Your task to perform on an android device: Clear all items from cart on newegg.com. Add razer huntsman to the cart on newegg.com Image 0: 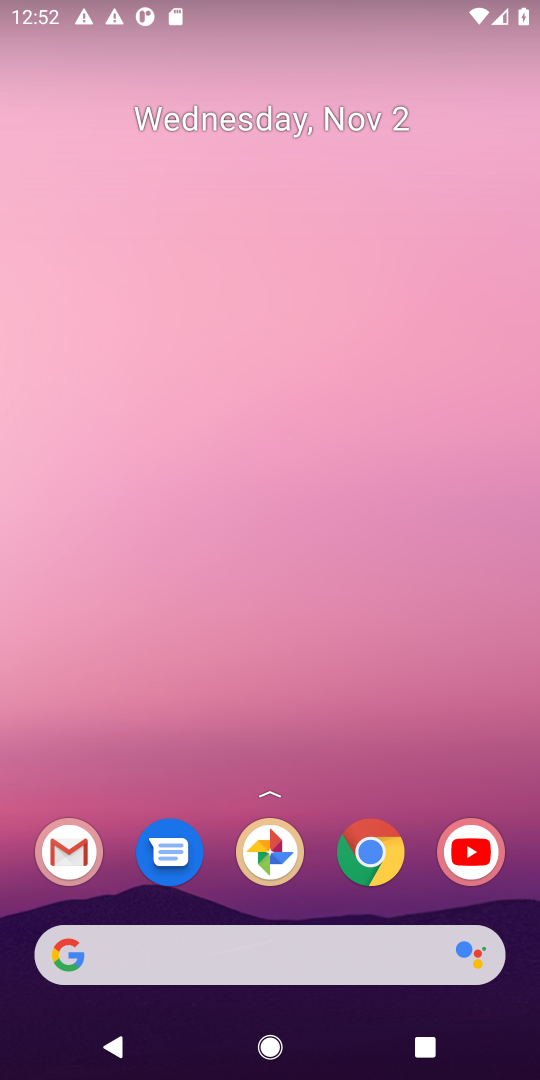
Step 0: press home button
Your task to perform on an android device: Clear all items from cart on newegg.com. Add razer huntsman to the cart on newegg.com Image 1: 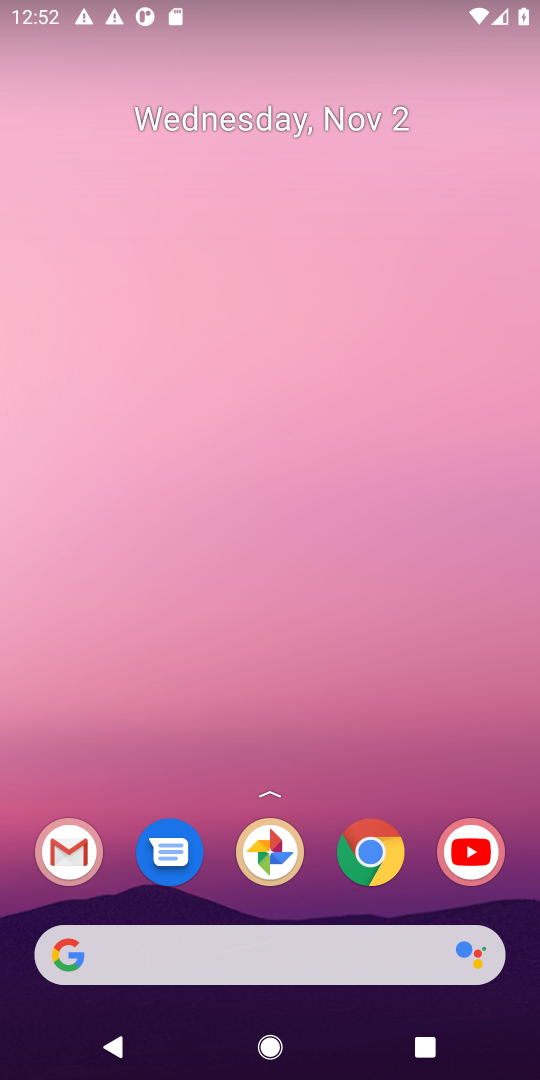
Step 1: click (73, 957)
Your task to perform on an android device: Clear all items from cart on newegg.com. Add razer huntsman to the cart on newegg.com Image 2: 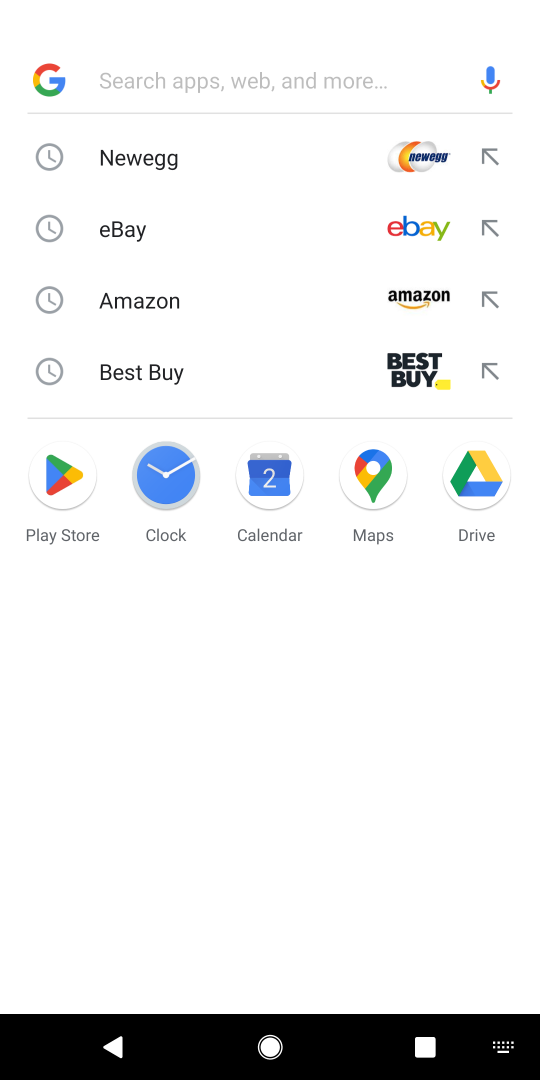
Step 2: click (172, 156)
Your task to perform on an android device: Clear all items from cart on newegg.com. Add razer huntsman to the cart on newegg.com Image 3: 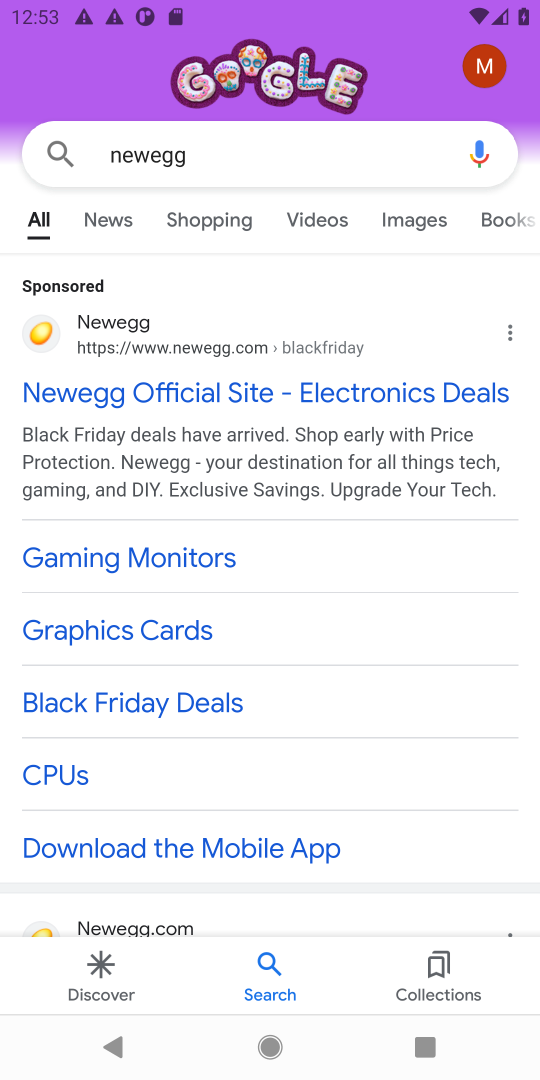
Step 3: drag from (403, 837) to (435, 197)
Your task to perform on an android device: Clear all items from cart on newegg.com. Add razer huntsman to the cart on newegg.com Image 4: 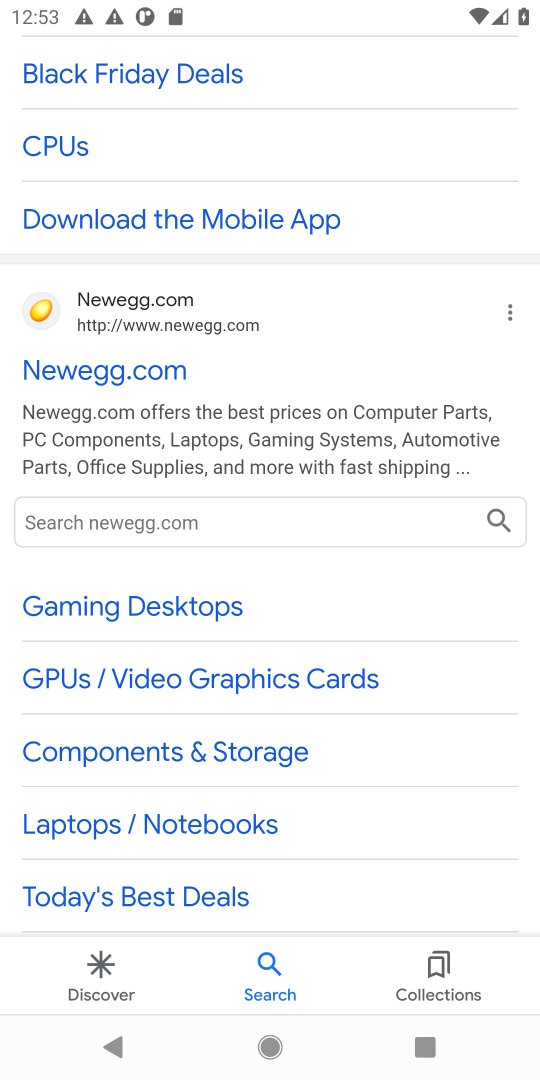
Step 4: click (67, 367)
Your task to perform on an android device: Clear all items from cart on newegg.com. Add razer huntsman to the cart on newegg.com Image 5: 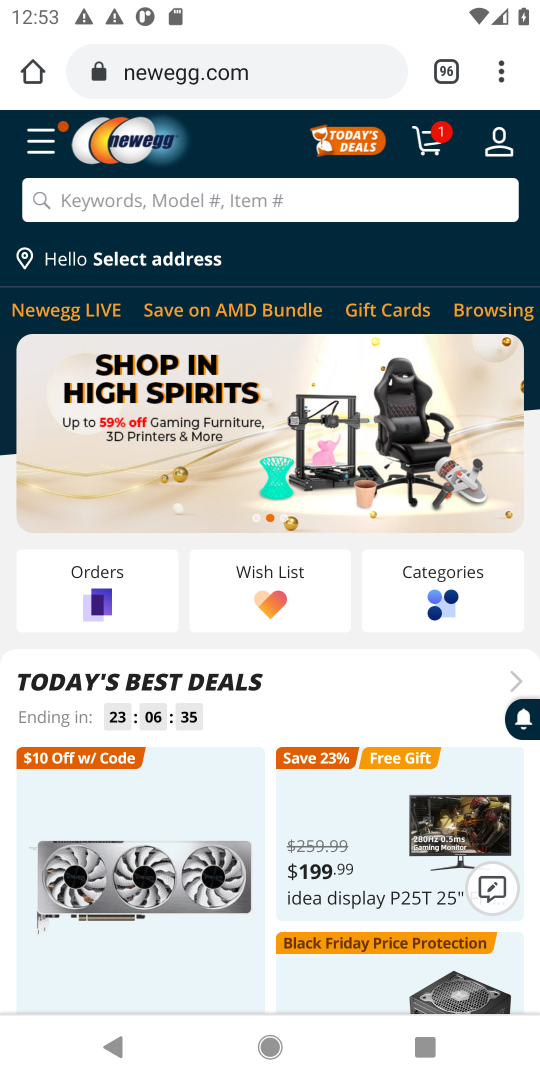
Step 5: click (153, 197)
Your task to perform on an android device: Clear all items from cart on newegg.com. Add razer huntsman to the cart on newegg.com Image 6: 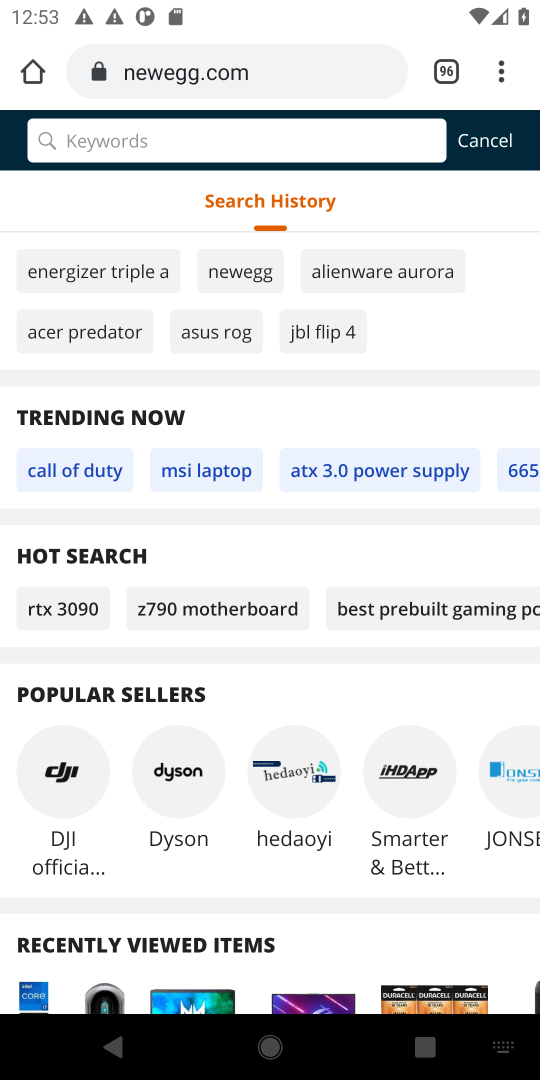
Step 6: type "razer huntsman"
Your task to perform on an android device: Clear all items from cart on newegg.com. Add razer huntsman to the cart on newegg.com Image 7: 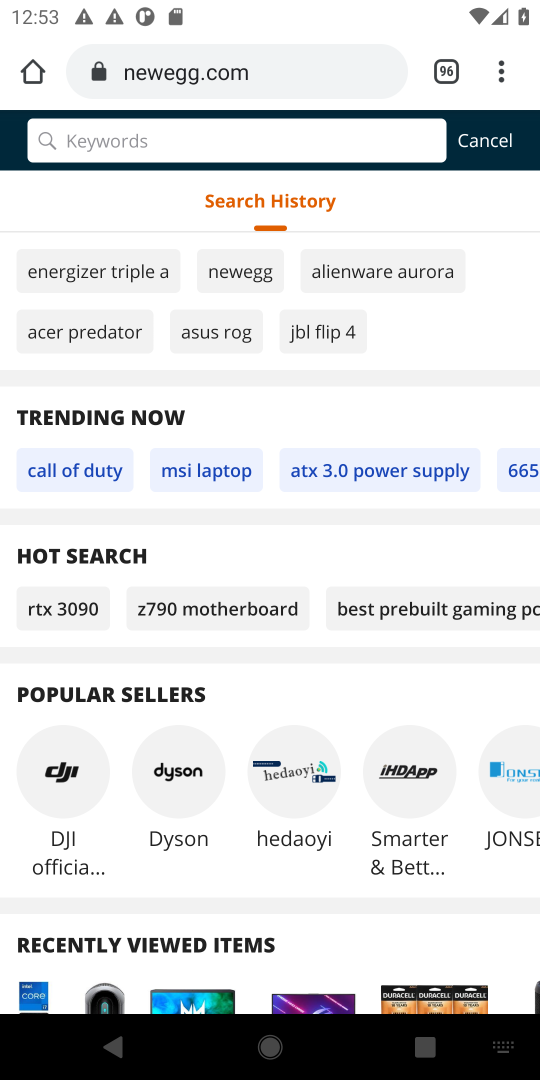
Step 7: click (169, 136)
Your task to perform on an android device: Clear all items from cart on newegg.com. Add razer huntsman to the cart on newegg.com Image 8: 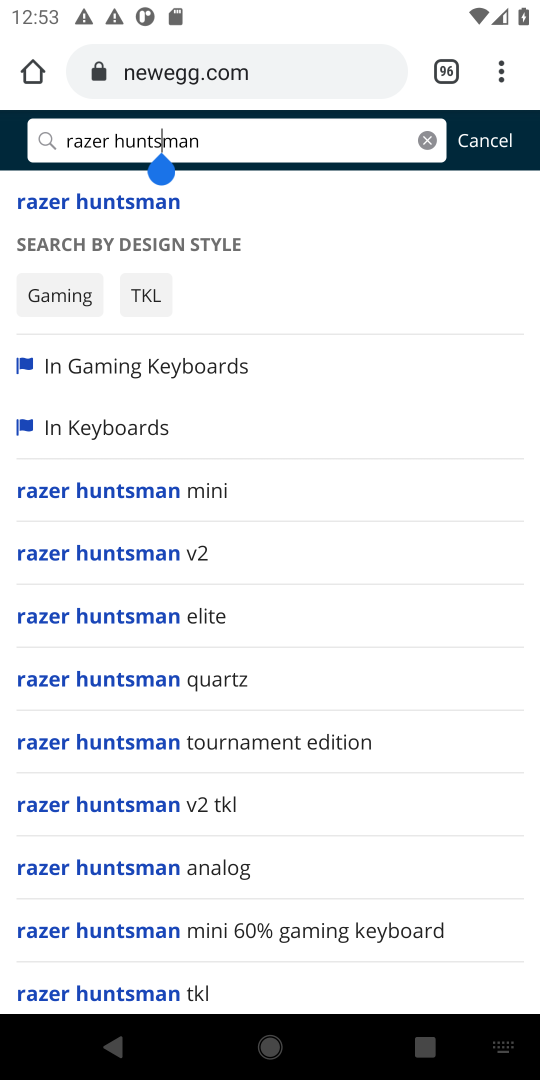
Step 8: press enter
Your task to perform on an android device: Clear all items from cart on newegg.com. Add razer huntsman to the cart on newegg.com Image 9: 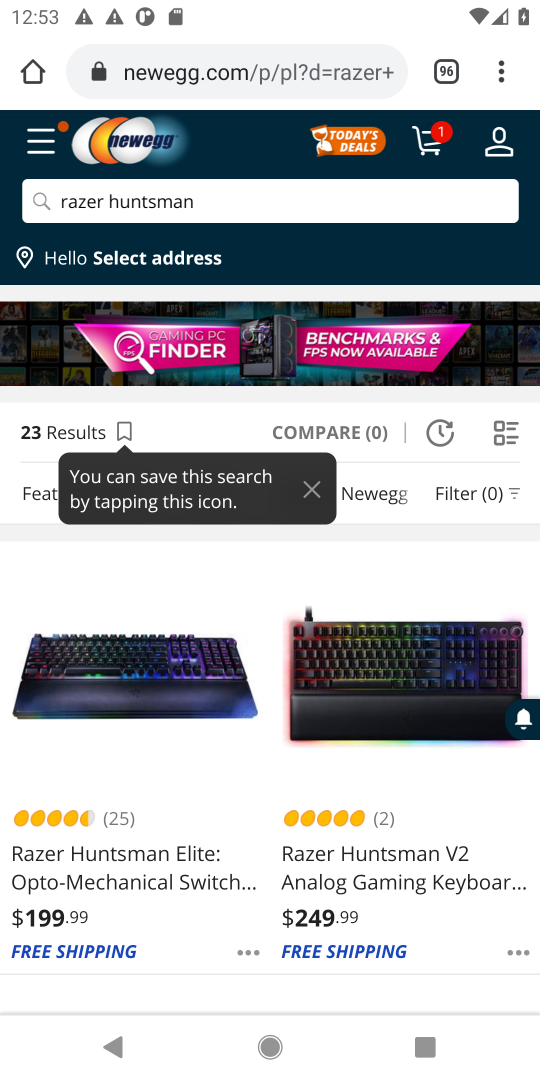
Step 9: drag from (193, 938) to (156, 637)
Your task to perform on an android device: Clear all items from cart on newegg.com. Add razer huntsman to the cart on newegg.com Image 10: 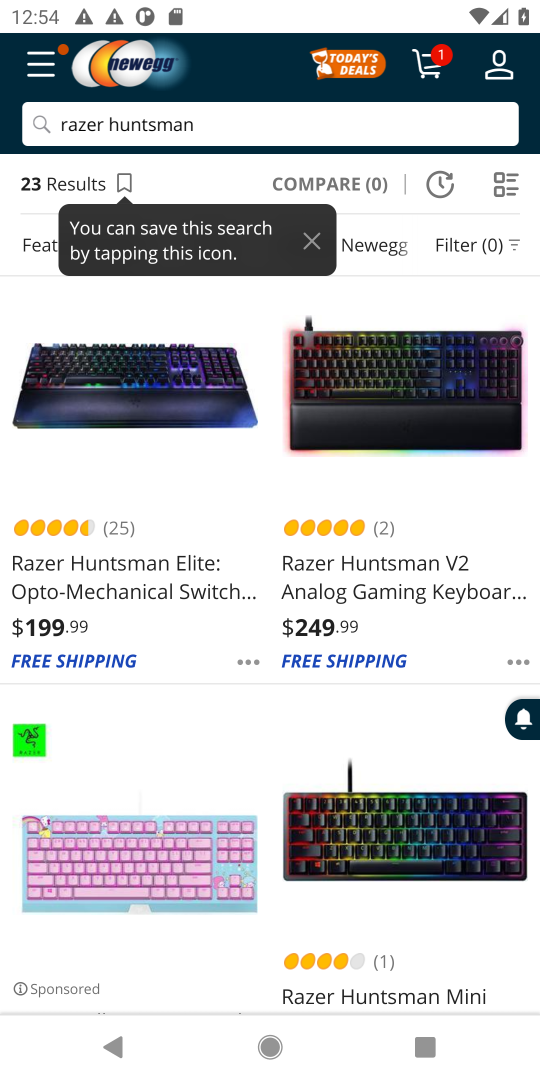
Step 10: drag from (160, 622) to (198, 562)
Your task to perform on an android device: Clear all items from cart on newegg.com. Add razer huntsman to the cart on newegg.com Image 11: 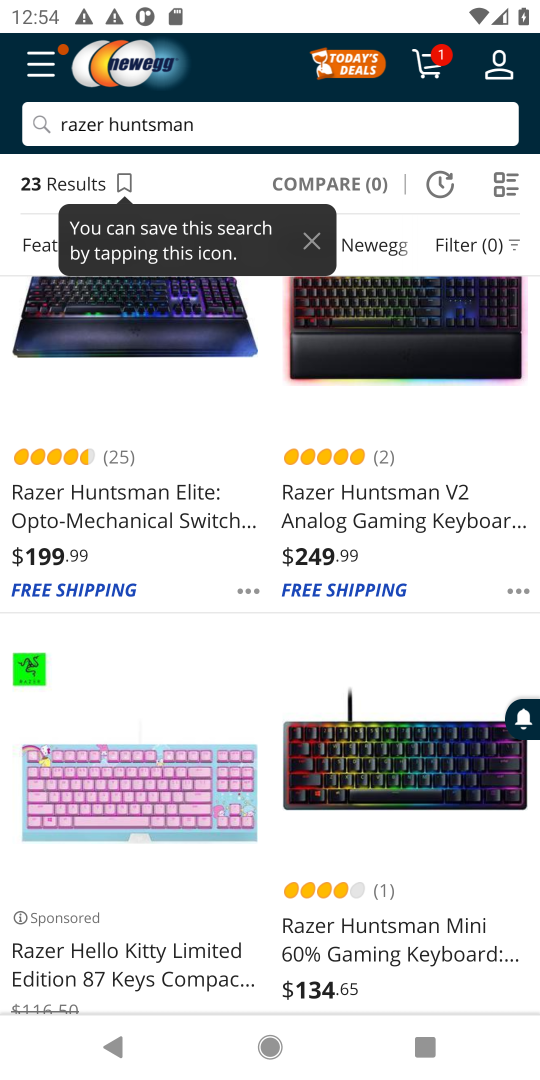
Step 11: click (115, 488)
Your task to perform on an android device: Clear all items from cart on newegg.com. Add razer huntsman to the cart on newegg.com Image 12: 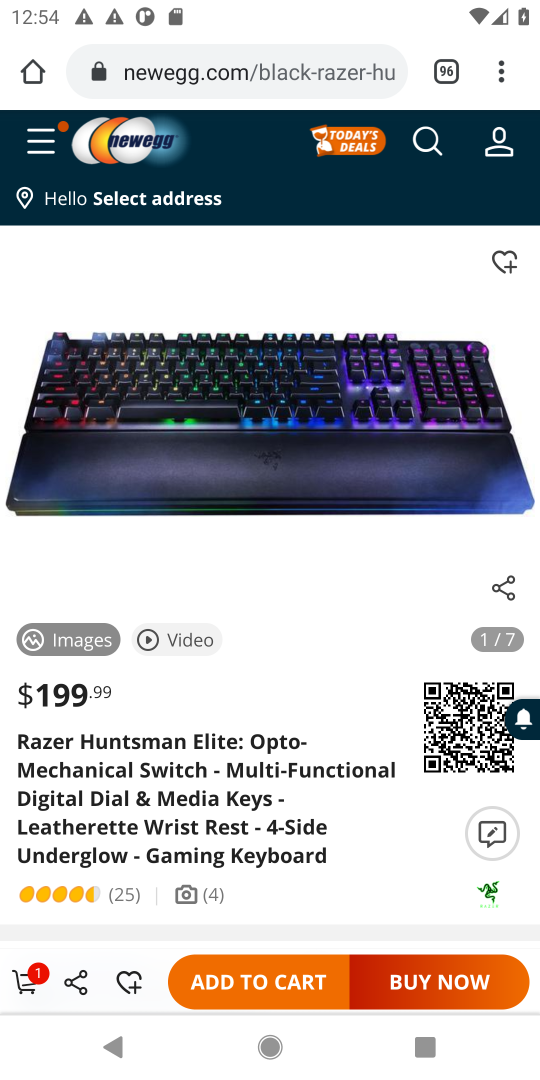
Step 12: click (252, 987)
Your task to perform on an android device: Clear all items from cart on newegg.com. Add razer huntsman to the cart on newegg.com Image 13: 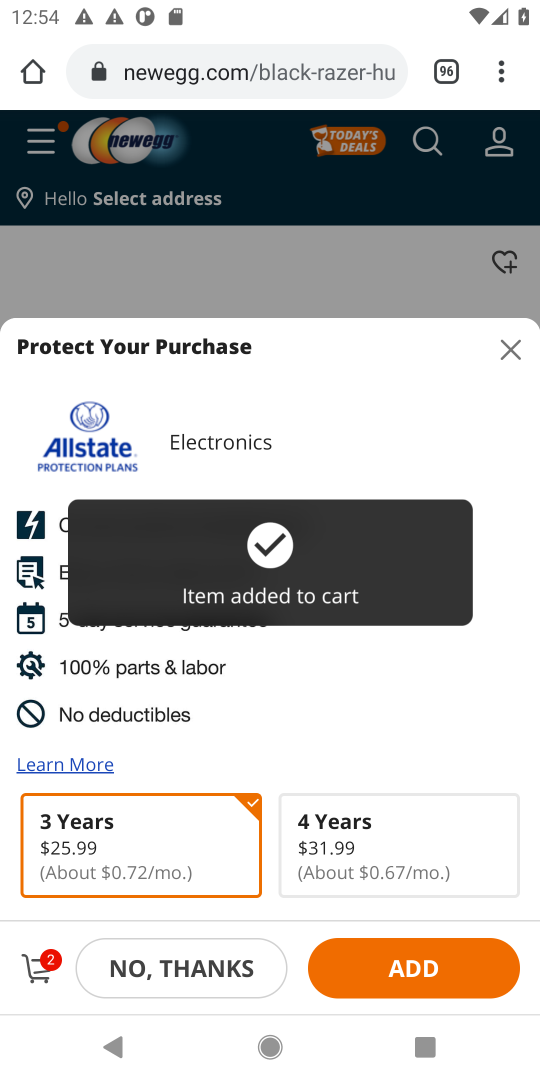
Step 13: click (21, 978)
Your task to perform on an android device: Clear all items from cart on newegg.com. Add razer huntsman to the cart on newegg.com Image 14: 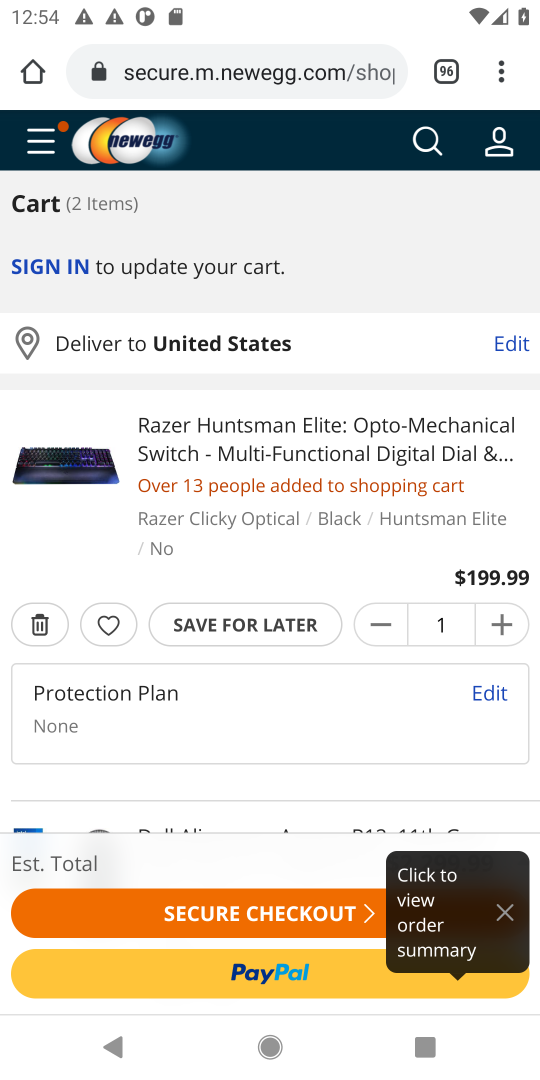
Step 14: drag from (353, 786) to (361, 409)
Your task to perform on an android device: Clear all items from cart on newegg.com. Add razer huntsman to the cart on newegg.com Image 15: 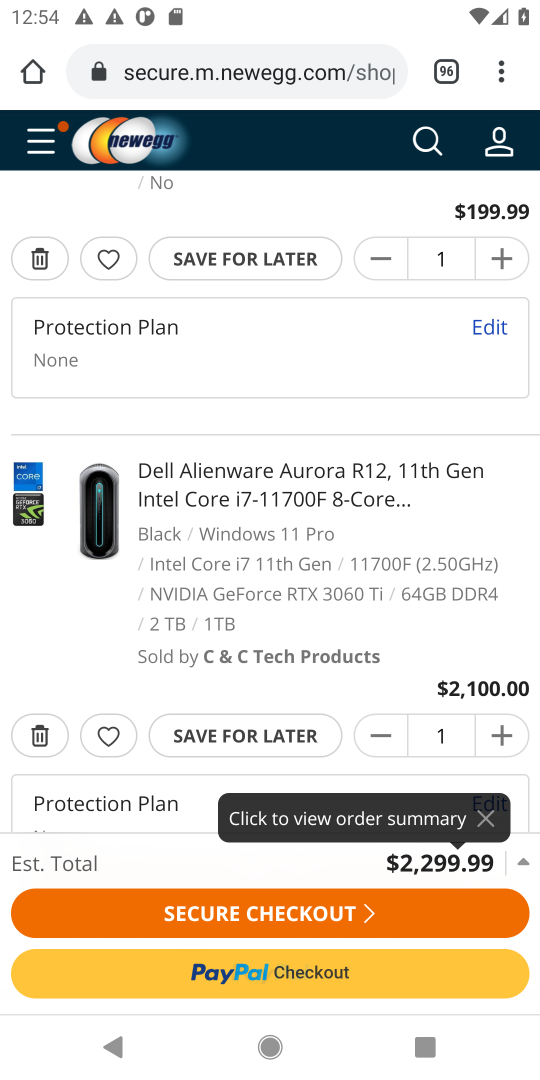
Step 15: click (40, 738)
Your task to perform on an android device: Clear all items from cart on newegg.com. Add razer huntsman to the cart on newegg.com Image 16: 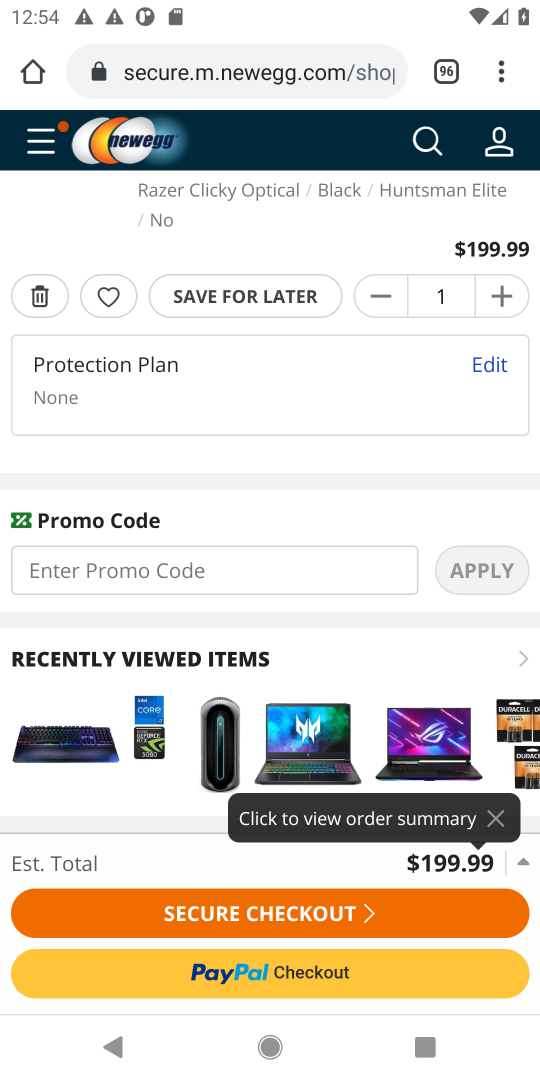
Step 16: task complete